Your task to perform on an android device: stop showing notifications on the lock screen Image 0: 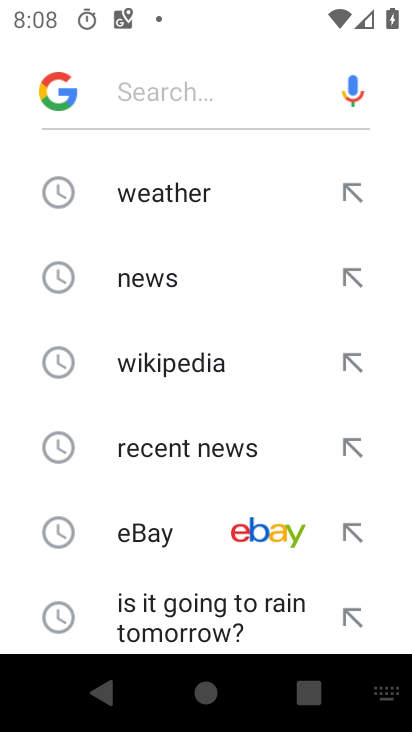
Step 0: press home button
Your task to perform on an android device: stop showing notifications on the lock screen Image 1: 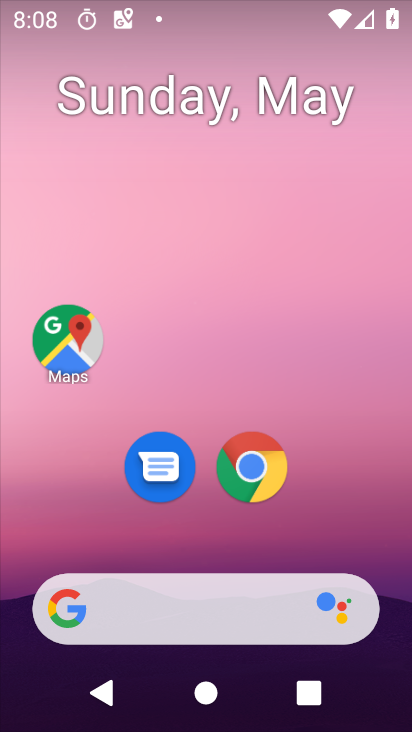
Step 1: drag from (81, 729) to (268, 167)
Your task to perform on an android device: stop showing notifications on the lock screen Image 2: 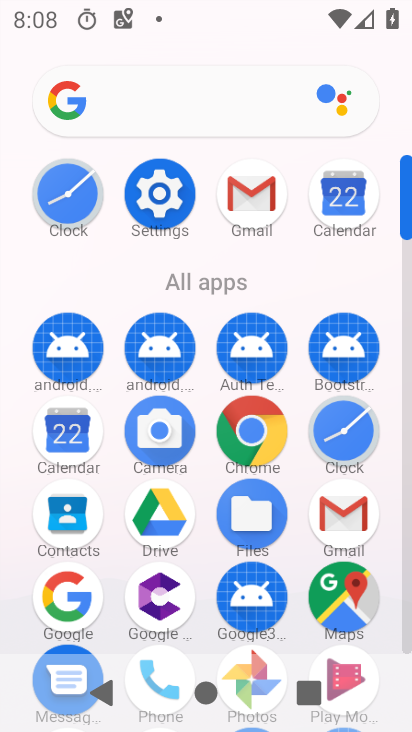
Step 2: click (135, 188)
Your task to perform on an android device: stop showing notifications on the lock screen Image 3: 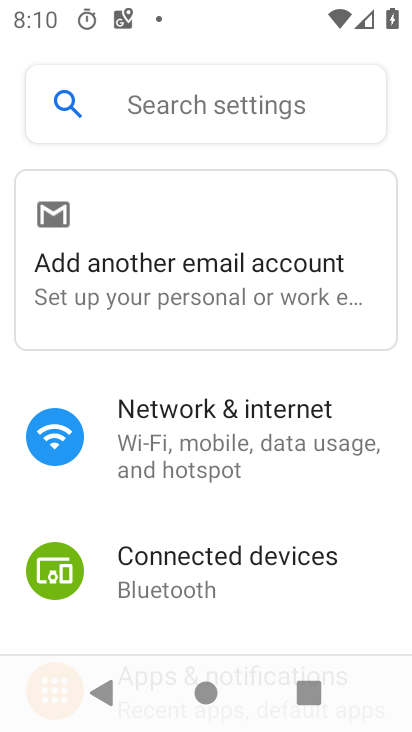
Step 3: drag from (45, 453) to (233, 129)
Your task to perform on an android device: stop showing notifications on the lock screen Image 4: 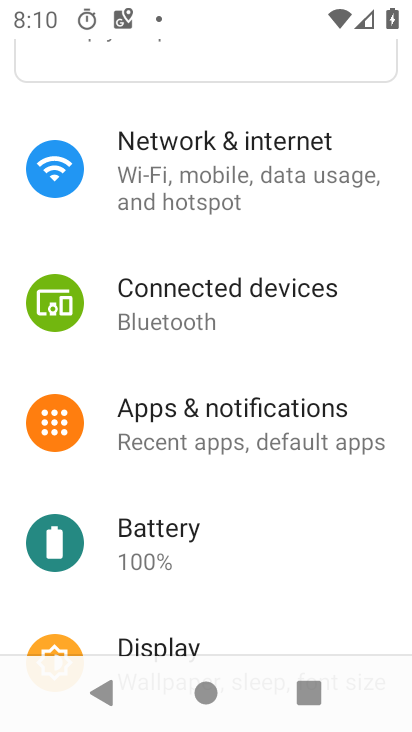
Step 4: click (180, 414)
Your task to perform on an android device: stop showing notifications on the lock screen Image 5: 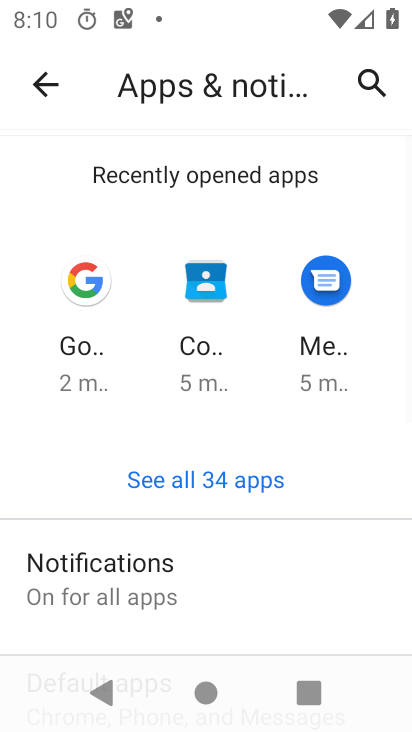
Step 5: click (53, 578)
Your task to perform on an android device: stop showing notifications on the lock screen Image 6: 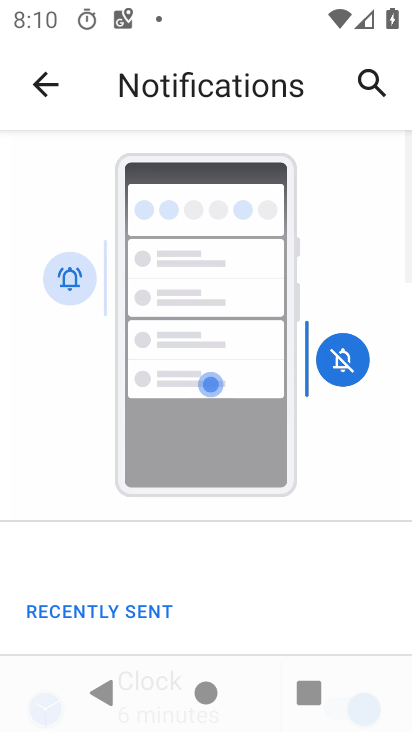
Step 6: drag from (24, 443) to (139, 126)
Your task to perform on an android device: stop showing notifications on the lock screen Image 7: 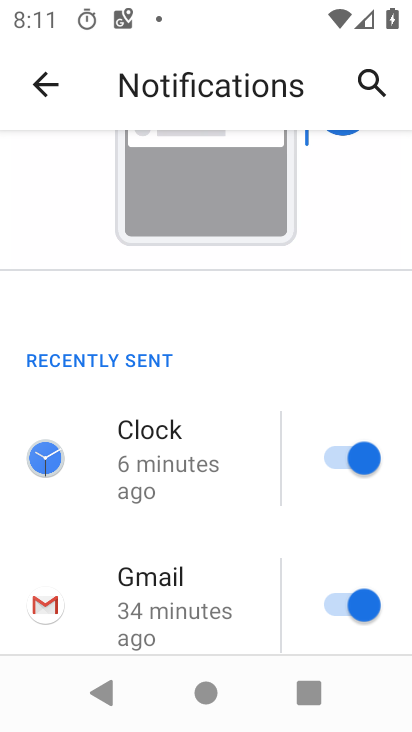
Step 7: drag from (6, 608) to (261, 166)
Your task to perform on an android device: stop showing notifications on the lock screen Image 8: 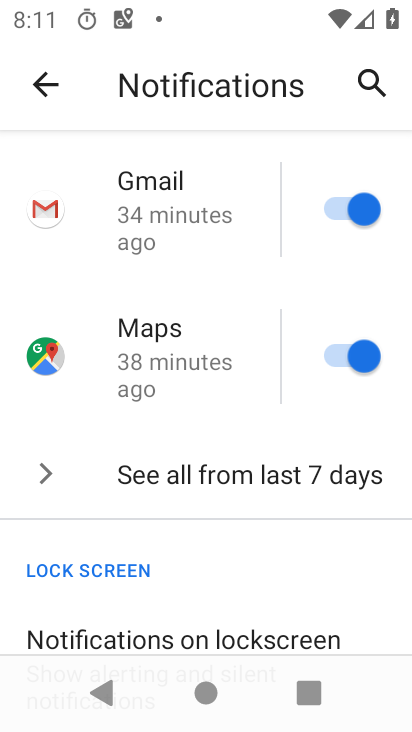
Step 8: drag from (102, 634) to (263, 283)
Your task to perform on an android device: stop showing notifications on the lock screen Image 9: 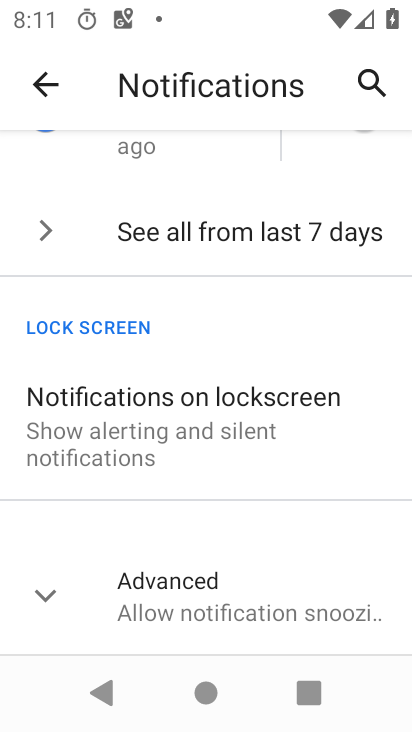
Step 9: click (214, 449)
Your task to perform on an android device: stop showing notifications on the lock screen Image 10: 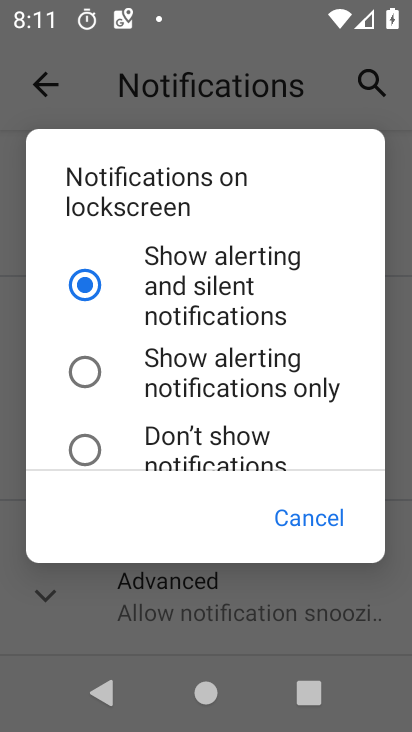
Step 10: drag from (12, 426) to (148, 179)
Your task to perform on an android device: stop showing notifications on the lock screen Image 11: 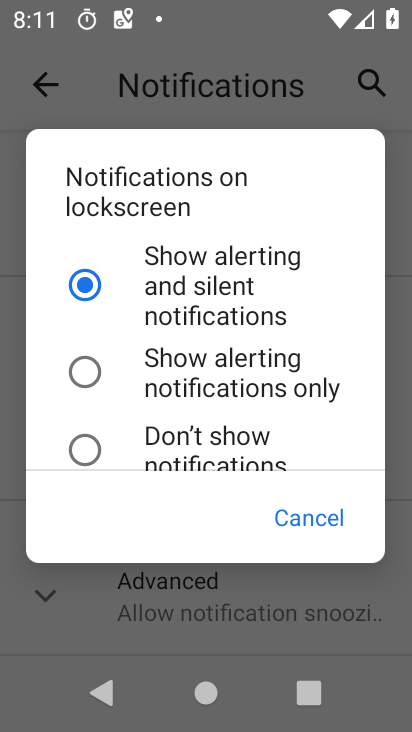
Step 11: click (81, 457)
Your task to perform on an android device: stop showing notifications on the lock screen Image 12: 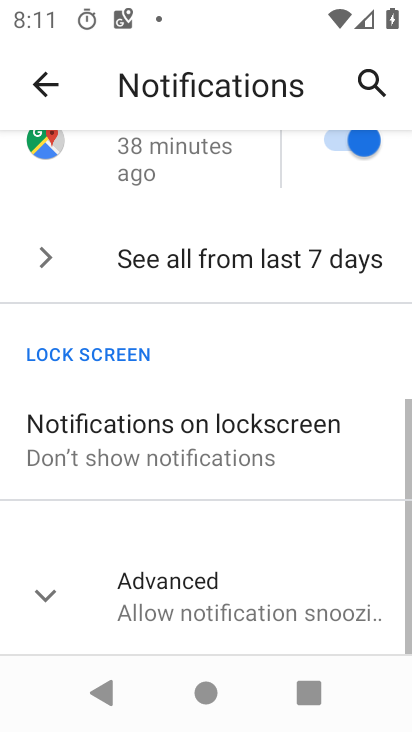
Step 12: task complete